Your task to perform on an android device: all mails in gmail Image 0: 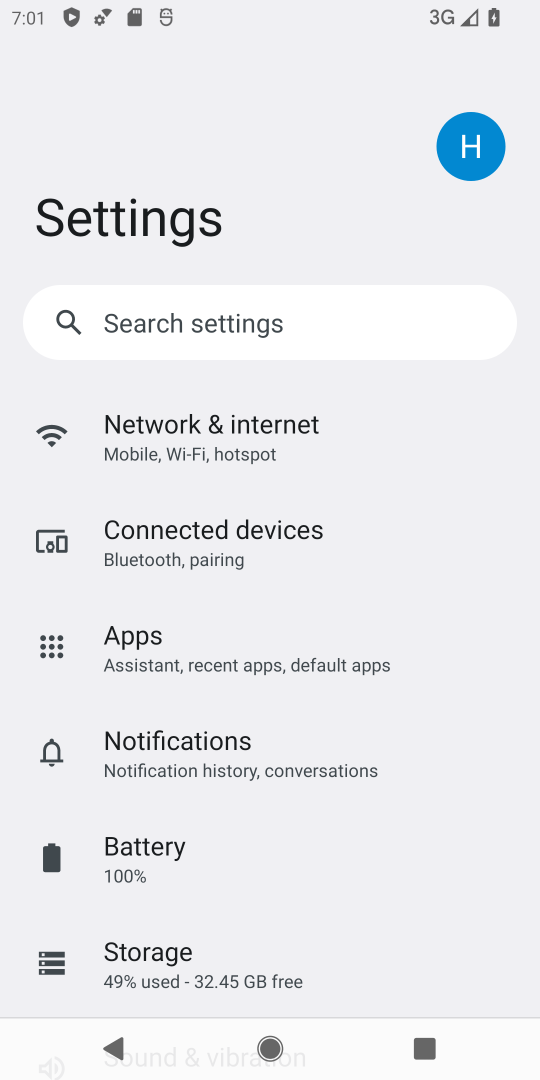
Step 0: press home button
Your task to perform on an android device: all mails in gmail Image 1: 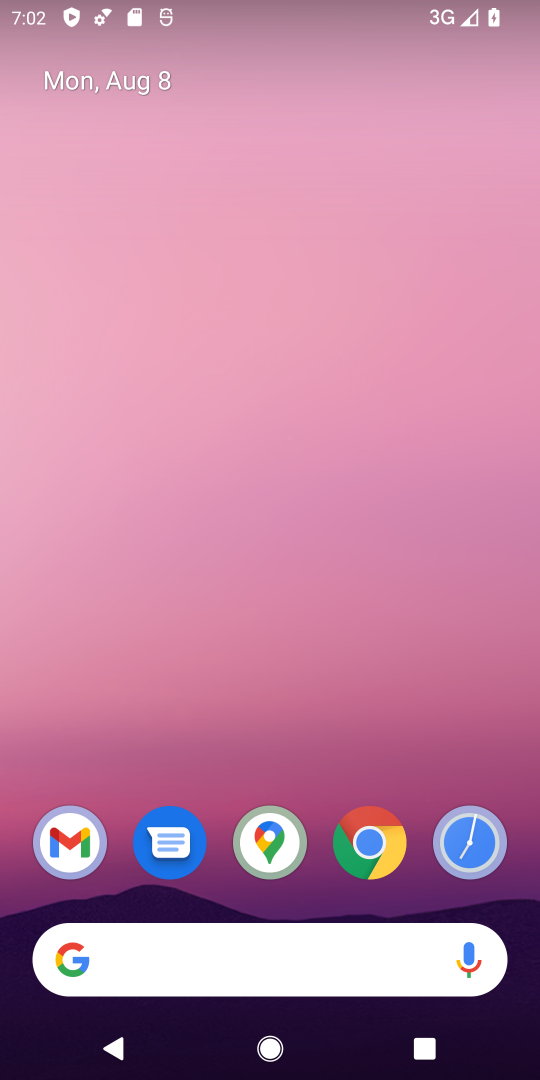
Step 1: drag from (314, 915) to (288, 30)
Your task to perform on an android device: all mails in gmail Image 2: 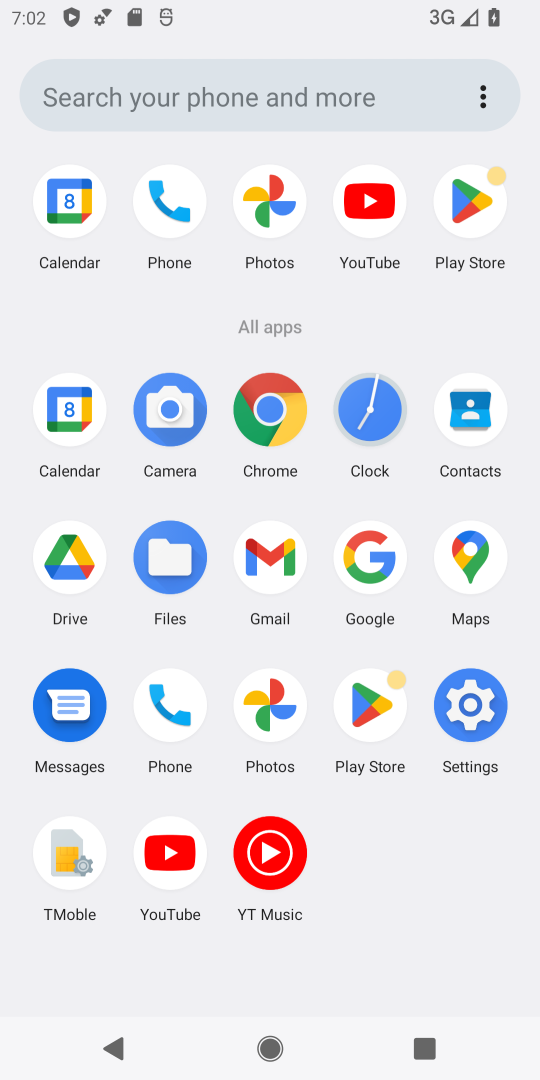
Step 2: click (290, 562)
Your task to perform on an android device: all mails in gmail Image 3: 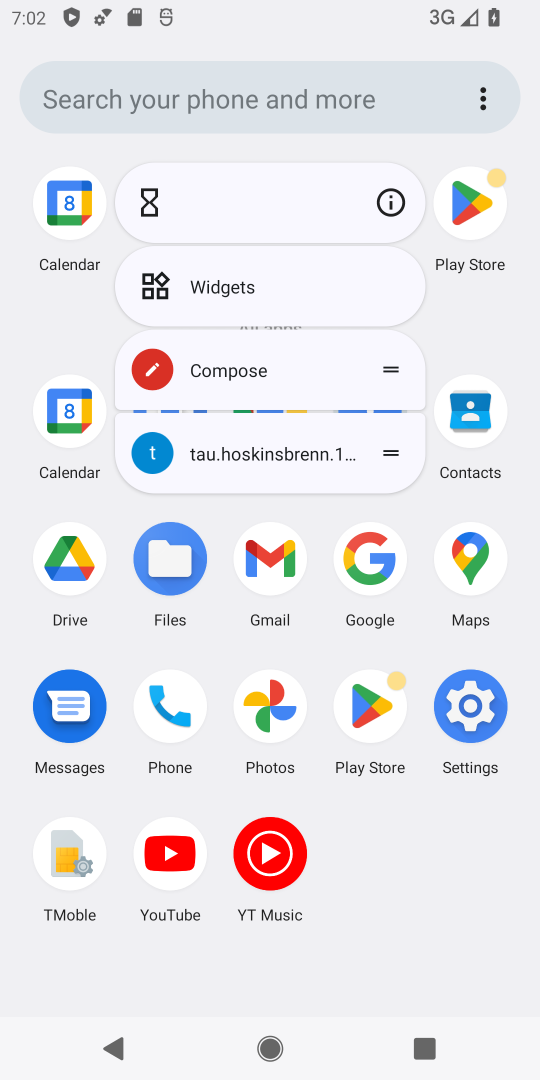
Step 3: click (257, 551)
Your task to perform on an android device: all mails in gmail Image 4: 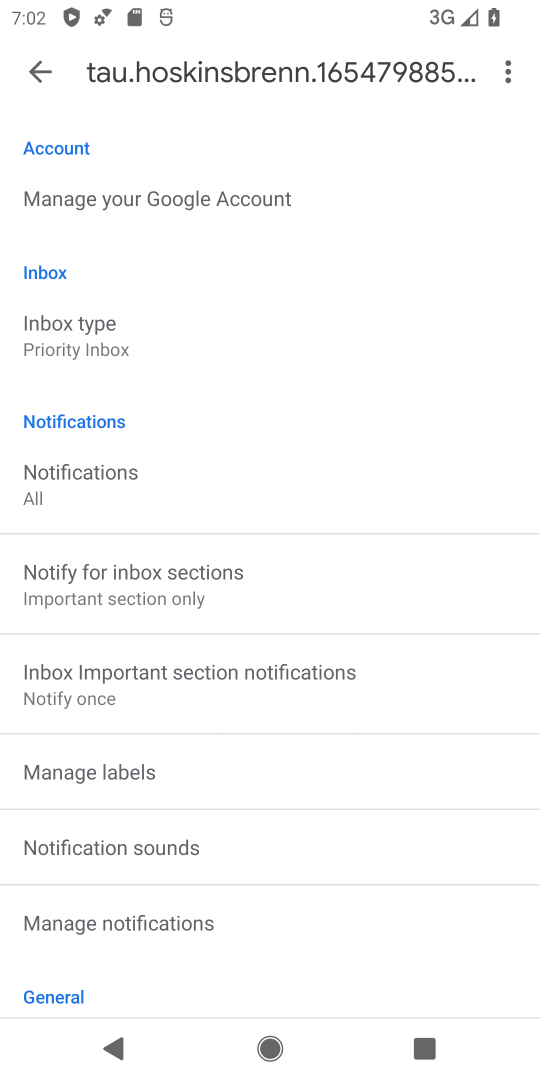
Step 4: click (28, 82)
Your task to perform on an android device: all mails in gmail Image 5: 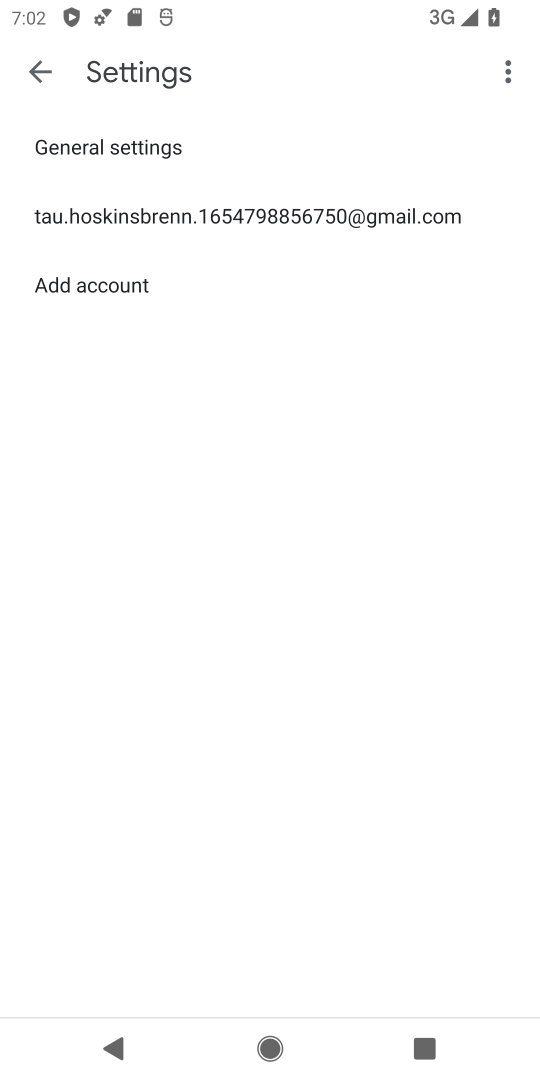
Step 5: click (15, 69)
Your task to perform on an android device: all mails in gmail Image 6: 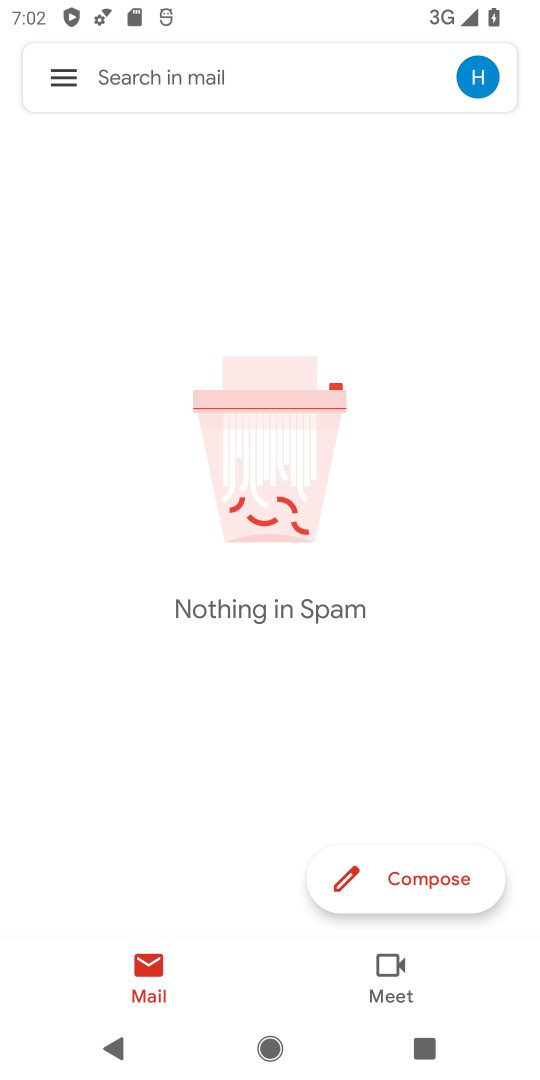
Step 6: click (55, 80)
Your task to perform on an android device: all mails in gmail Image 7: 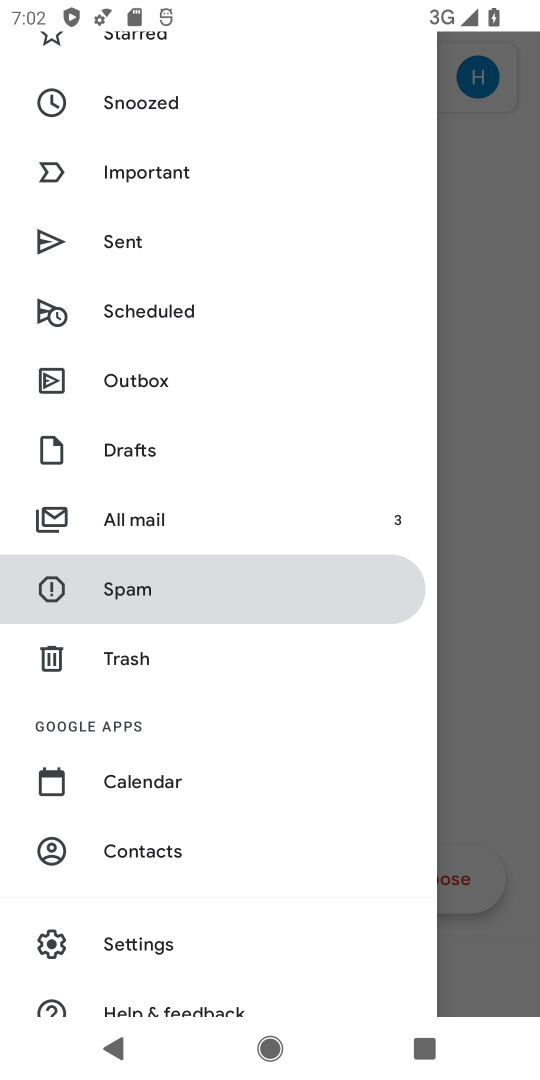
Step 7: drag from (122, 166) to (32, 794)
Your task to perform on an android device: all mails in gmail Image 8: 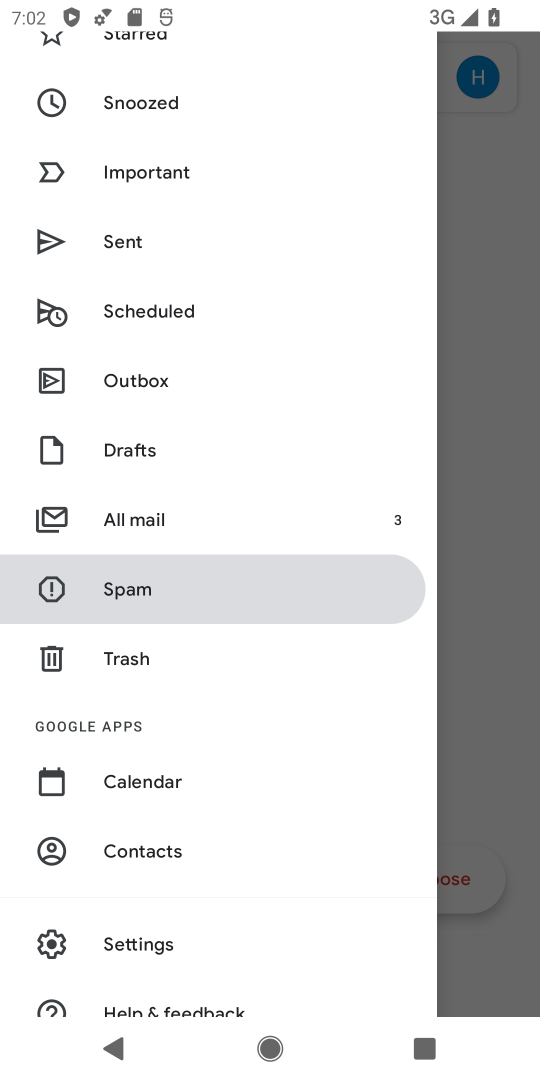
Step 8: drag from (101, 296) to (101, 909)
Your task to perform on an android device: all mails in gmail Image 9: 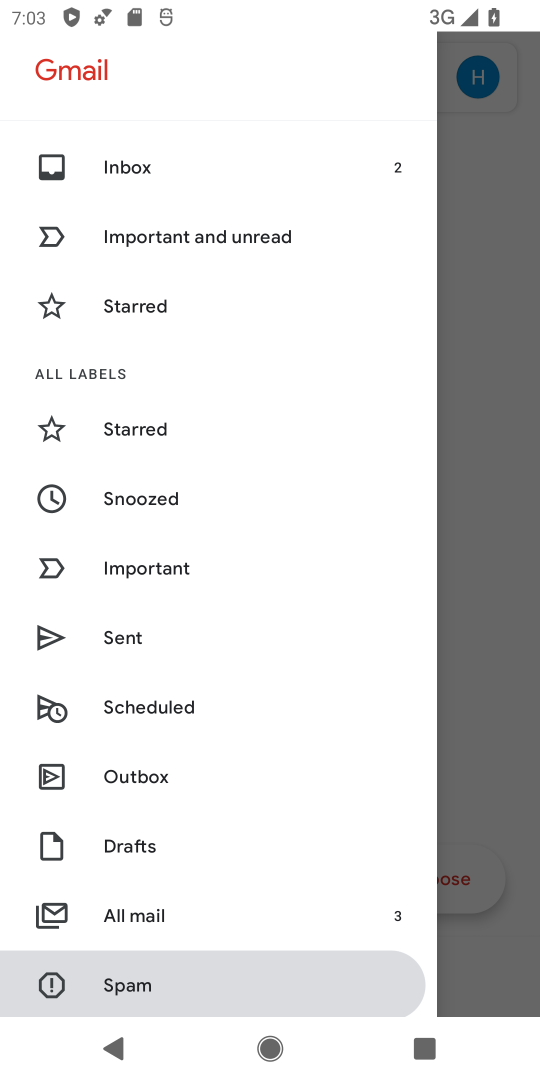
Step 9: click (138, 904)
Your task to perform on an android device: all mails in gmail Image 10: 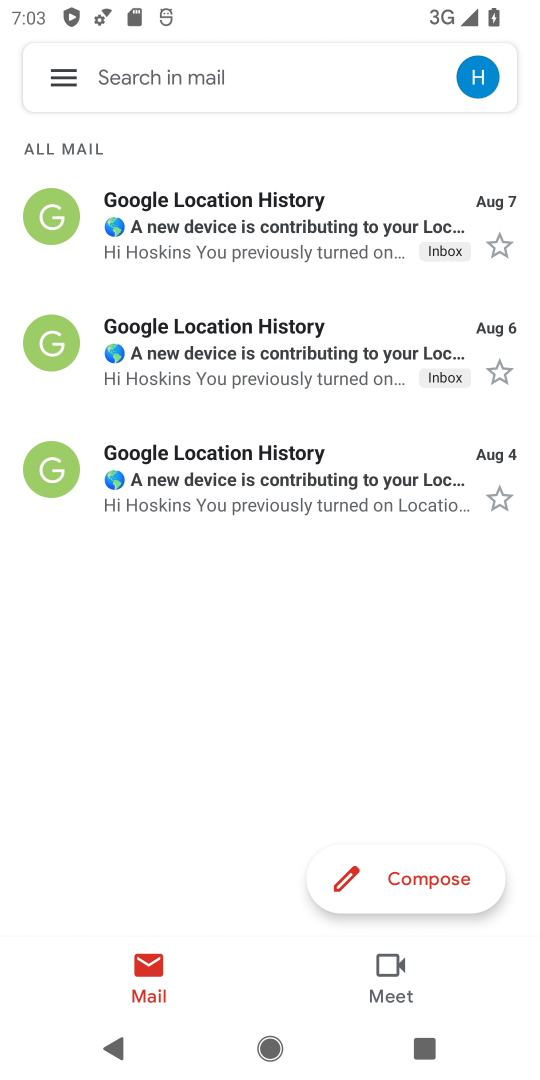
Step 10: task complete